Your task to perform on an android device: Go to Maps Image 0: 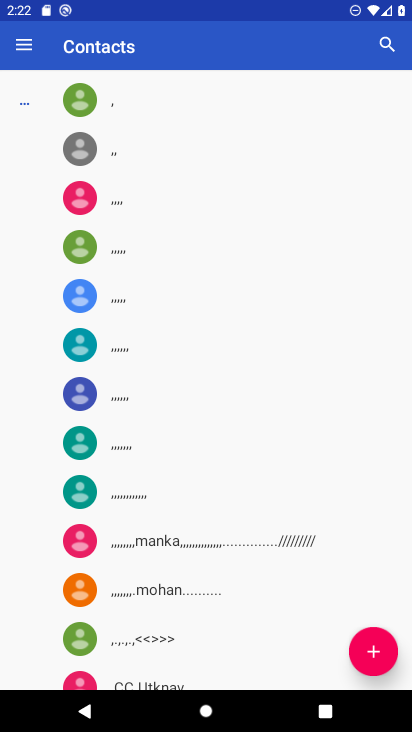
Step 0: press home button
Your task to perform on an android device: Go to Maps Image 1: 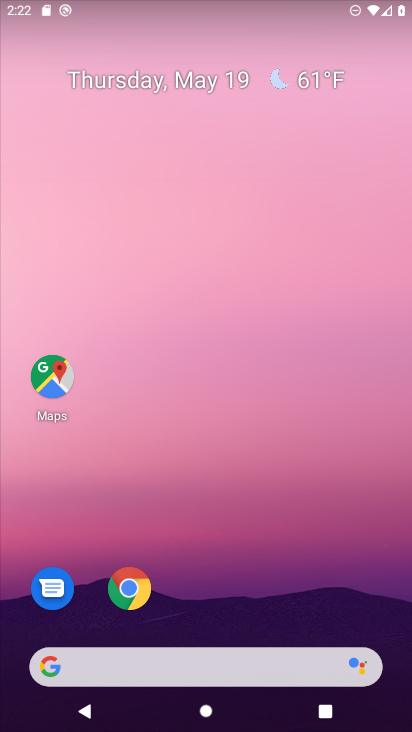
Step 1: click (54, 373)
Your task to perform on an android device: Go to Maps Image 2: 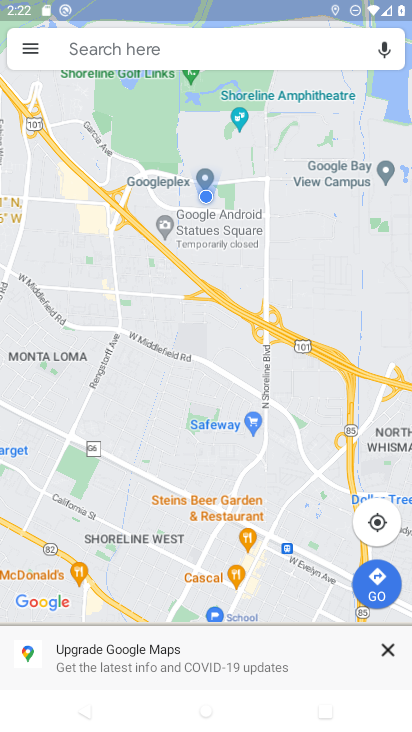
Step 2: task complete